Your task to perform on an android device: Open sound settings Image 0: 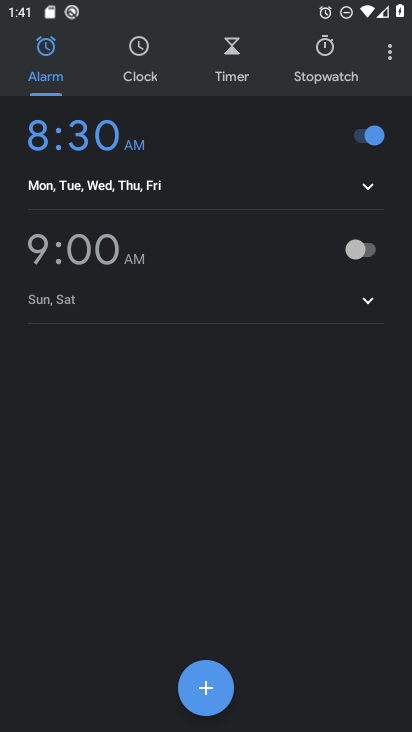
Step 0: click (385, 42)
Your task to perform on an android device: Open sound settings Image 1: 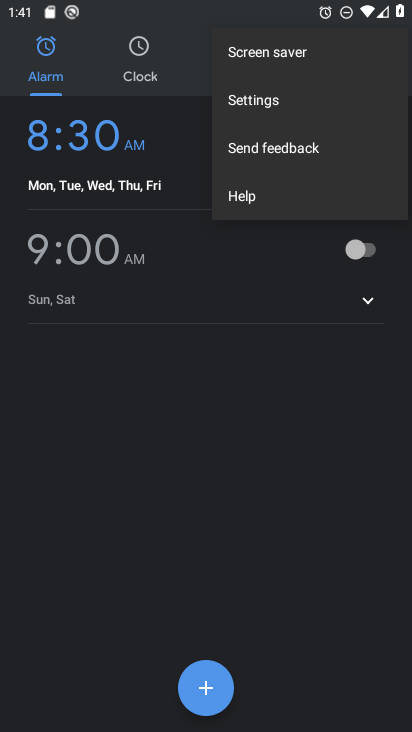
Step 1: click (281, 104)
Your task to perform on an android device: Open sound settings Image 2: 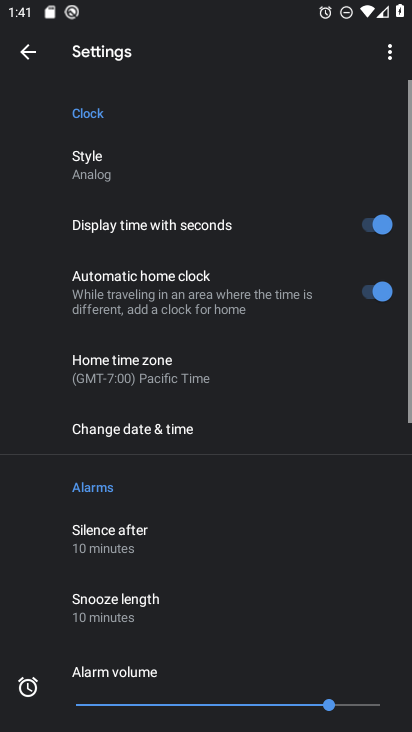
Step 2: drag from (251, 283) to (259, 217)
Your task to perform on an android device: Open sound settings Image 3: 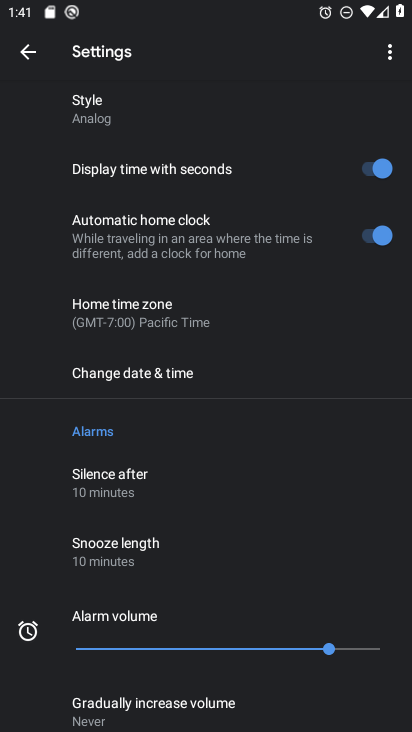
Step 3: press home button
Your task to perform on an android device: Open sound settings Image 4: 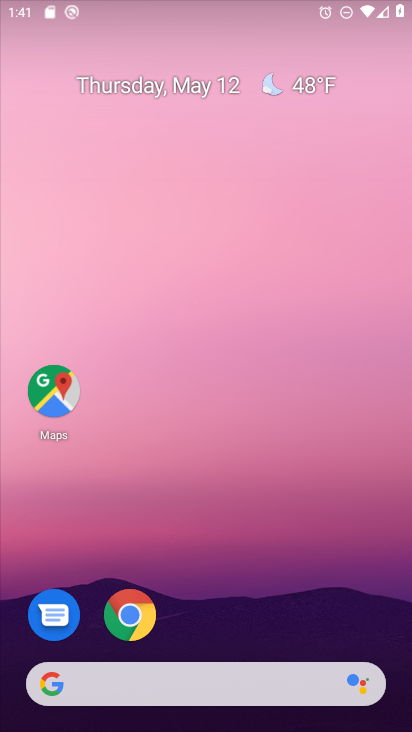
Step 4: drag from (283, 665) to (359, 2)
Your task to perform on an android device: Open sound settings Image 5: 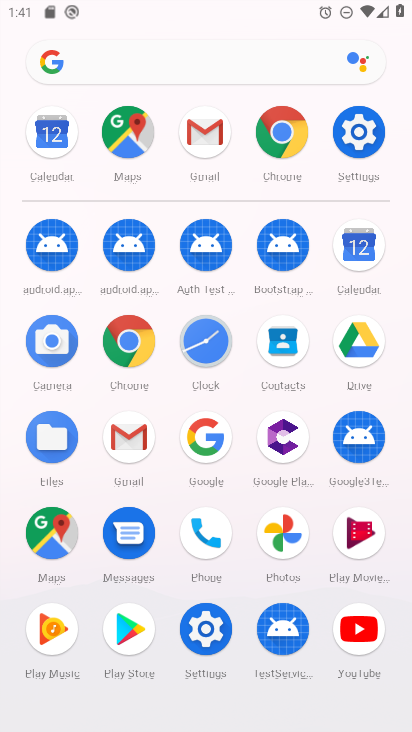
Step 5: click (361, 144)
Your task to perform on an android device: Open sound settings Image 6: 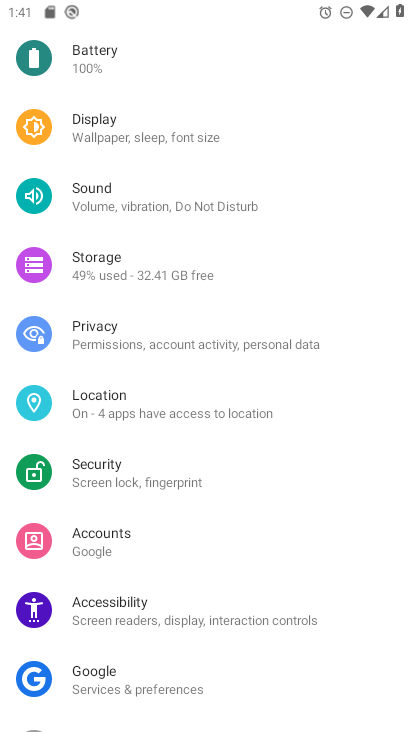
Step 6: click (158, 202)
Your task to perform on an android device: Open sound settings Image 7: 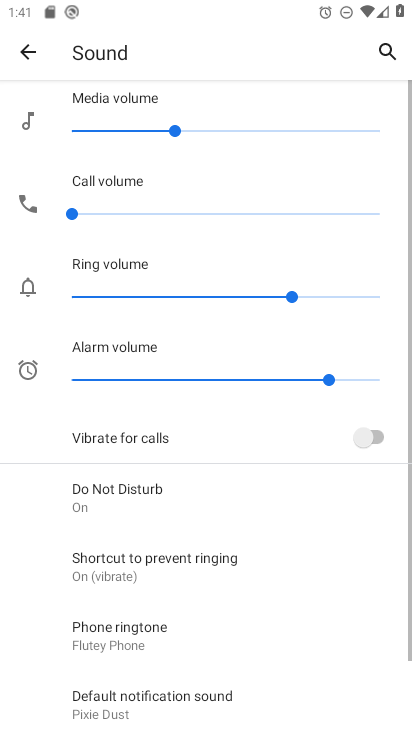
Step 7: task complete